Your task to perform on an android device: open a new tab in the chrome app Image 0: 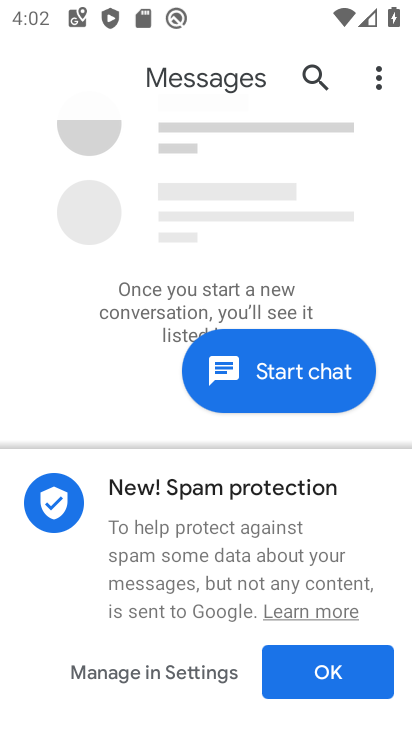
Step 0: press back button
Your task to perform on an android device: open a new tab in the chrome app Image 1: 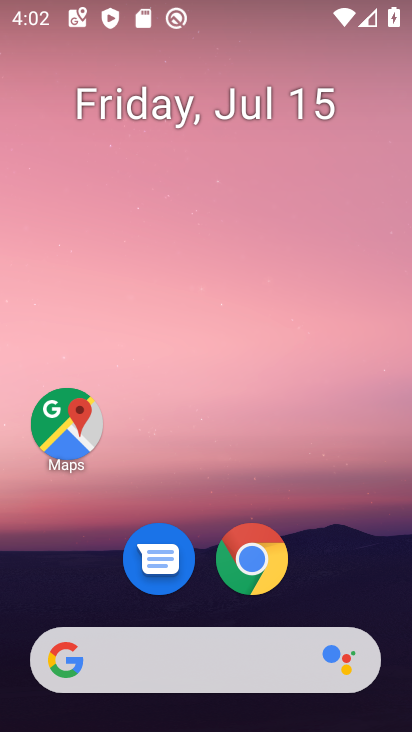
Step 1: click (249, 551)
Your task to perform on an android device: open a new tab in the chrome app Image 2: 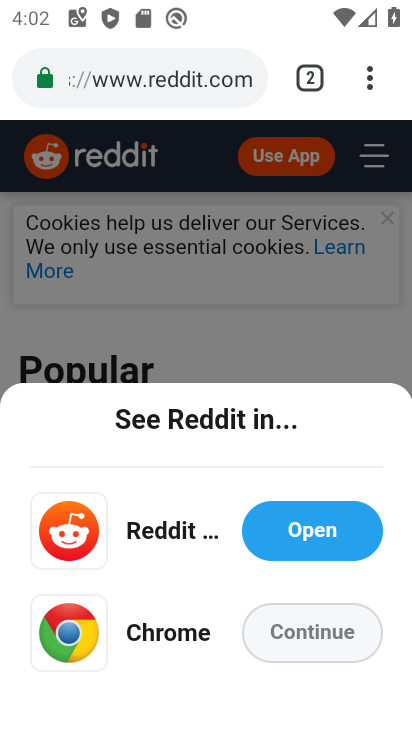
Step 2: click (305, 85)
Your task to perform on an android device: open a new tab in the chrome app Image 3: 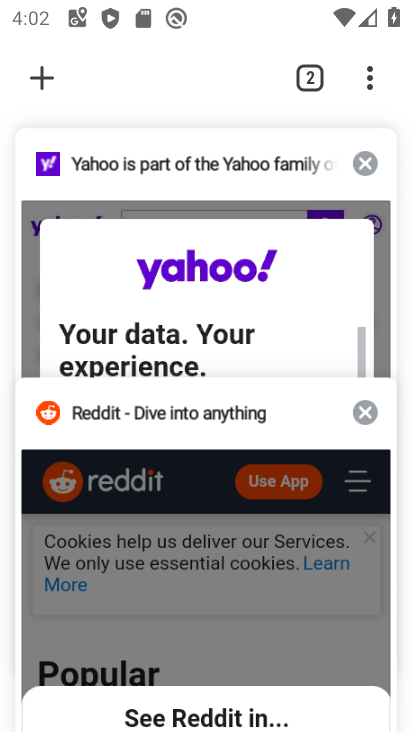
Step 3: click (46, 66)
Your task to perform on an android device: open a new tab in the chrome app Image 4: 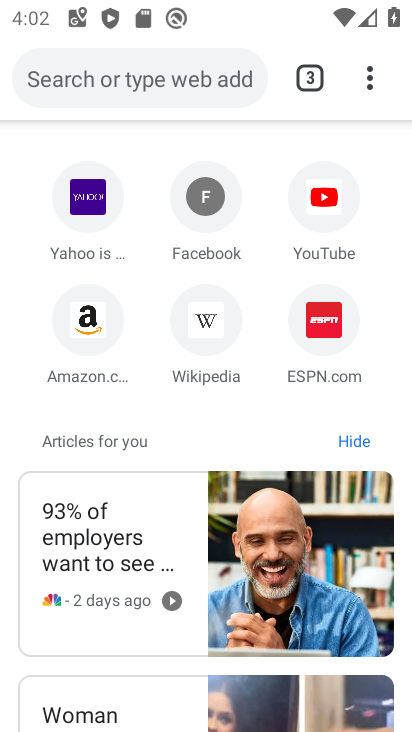
Step 4: task complete